Your task to perform on an android device: Play the last video I watched on Youtube Image 0: 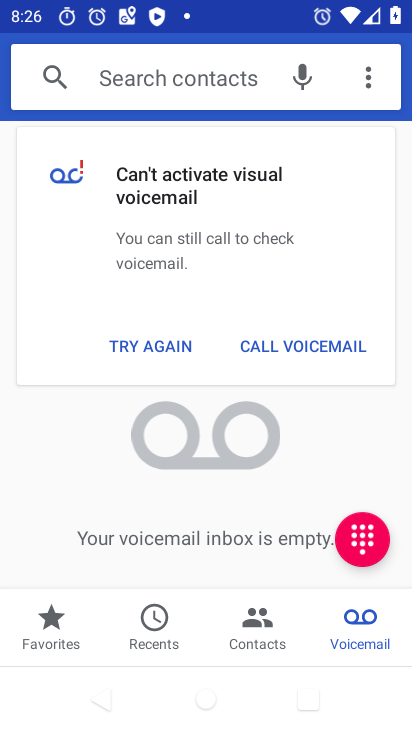
Step 0: press home button
Your task to perform on an android device: Play the last video I watched on Youtube Image 1: 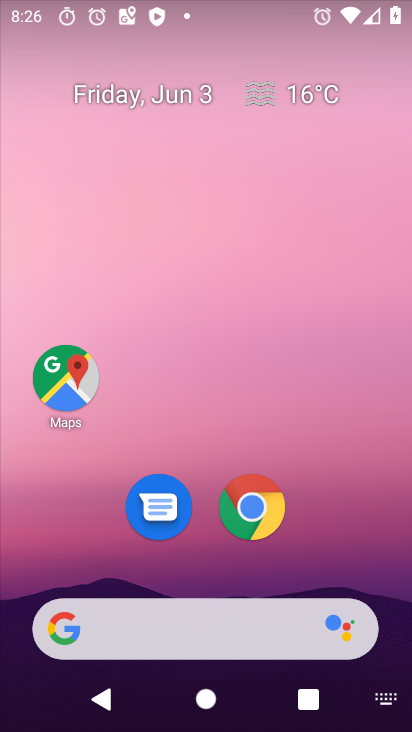
Step 1: drag from (339, 509) to (238, 3)
Your task to perform on an android device: Play the last video I watched on Youtube Image 2: 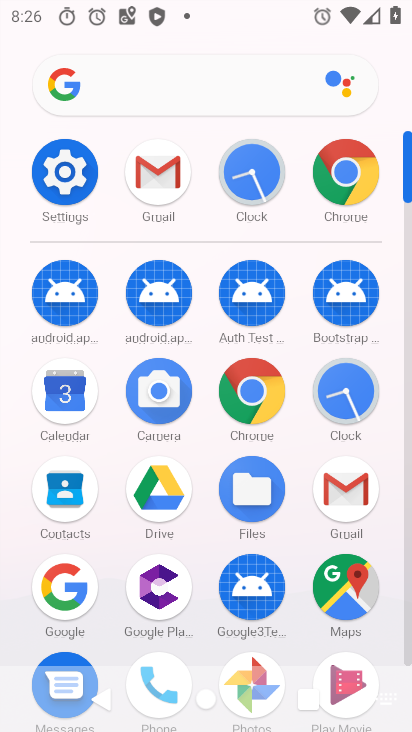
Step 2: drag from (162, 607) to (195, 89)
Your task to perform on an android device: Play the last video I watched on Youtube Image 3: 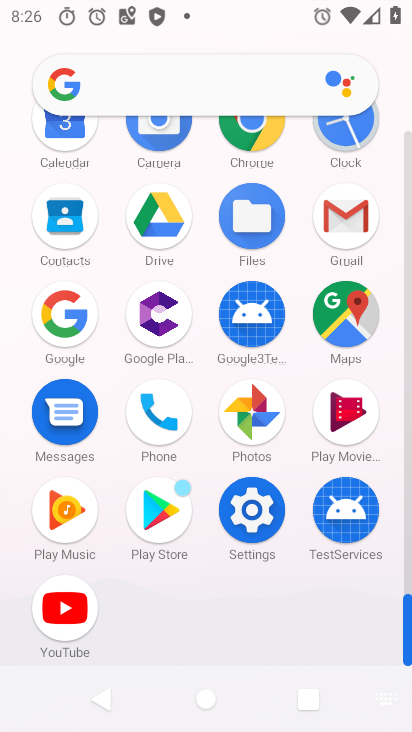
Step 3: click (63, 608)
Your task to perform on an android device: Play the last video I watched on Youtube Image 4: 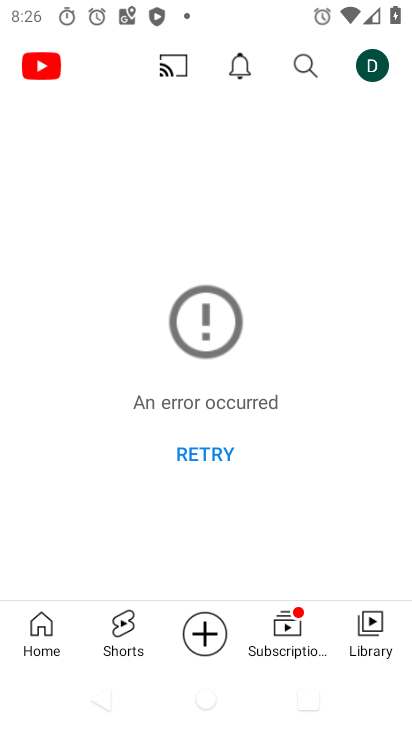
Step 4: click (371, 630)
Your task to perform on an android device: Play the last video I watched on Youtube Image 5: 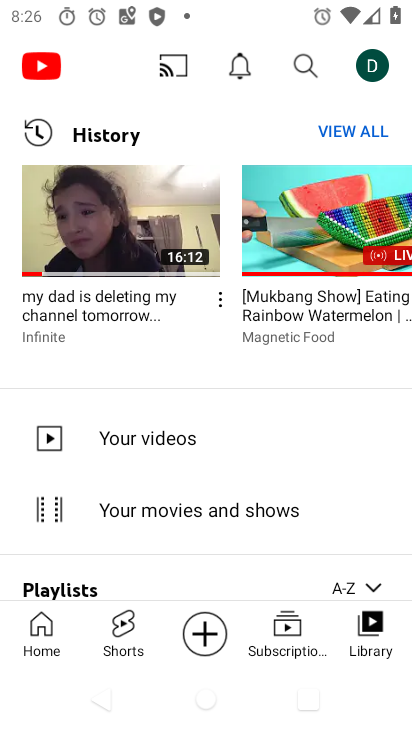
Step 5: click (121, 214)
Your task to perform on an android device: Play the last video I watched on Youtube Image 6: 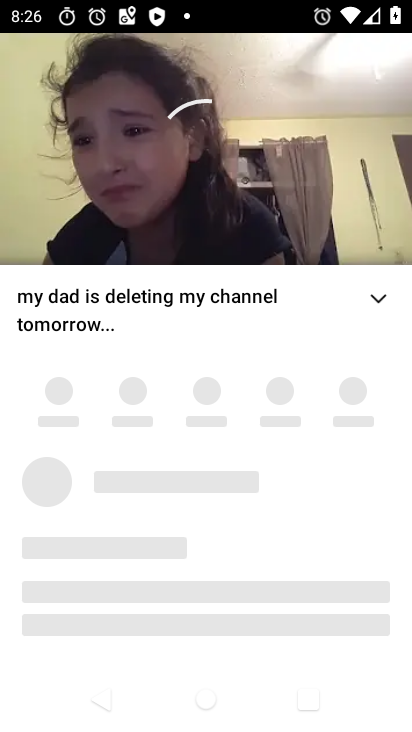
Step 6: click (198, 157)
Your task to perform on an android device: Play the last video I watched on Youtube Image 7: 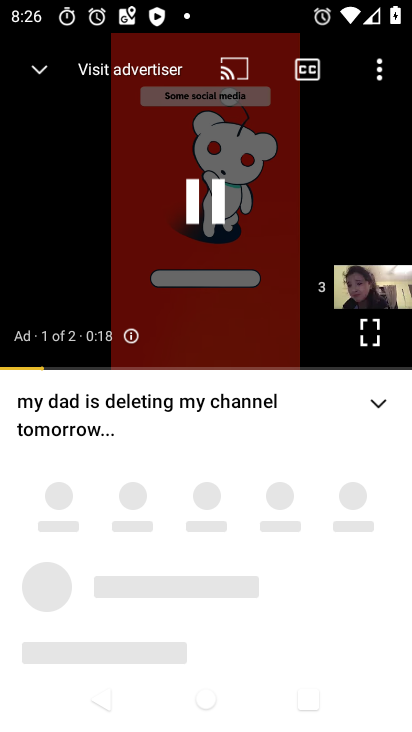
Step 7: click (192, 210)
Your task to perform on an android device: Play the last video I watched on Youtube Image 8: 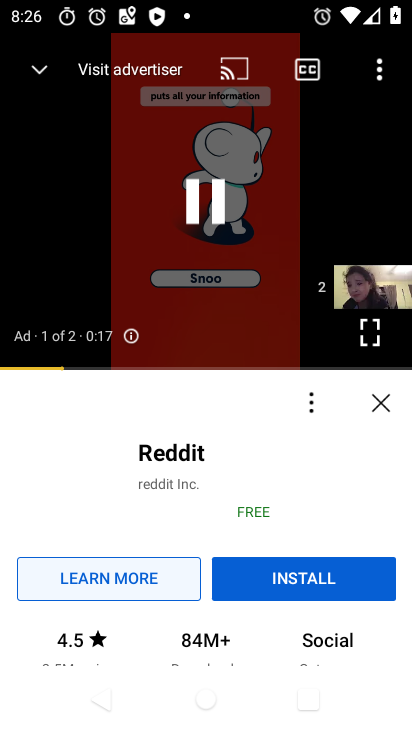
Step 8: task complete